Your task to perform on an android device: empty trash in google photos Image 0: 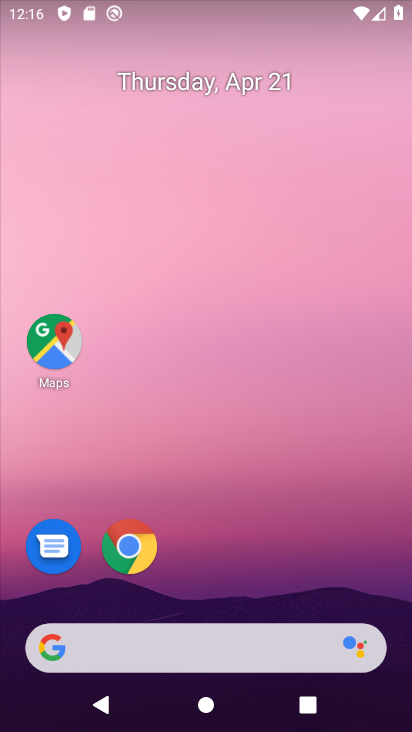
Step 0: drag from (241, 550) to (172, 82)
Your task to perform on an android device: empty trash in google photos Image 1: 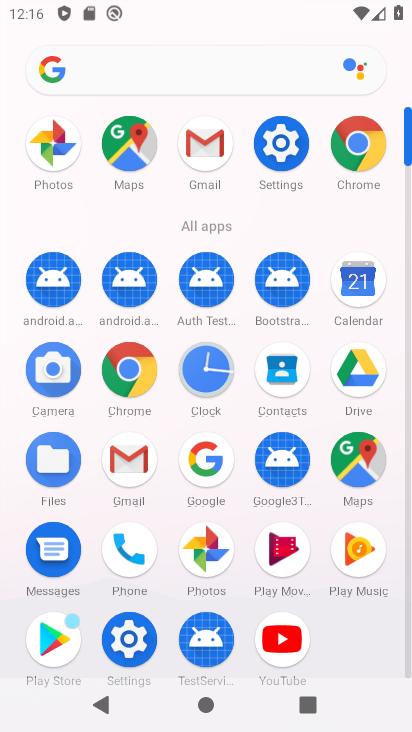
Step 1: click (212, 552)
Your task to perform on an android device: empty trash in google photos Image 2: 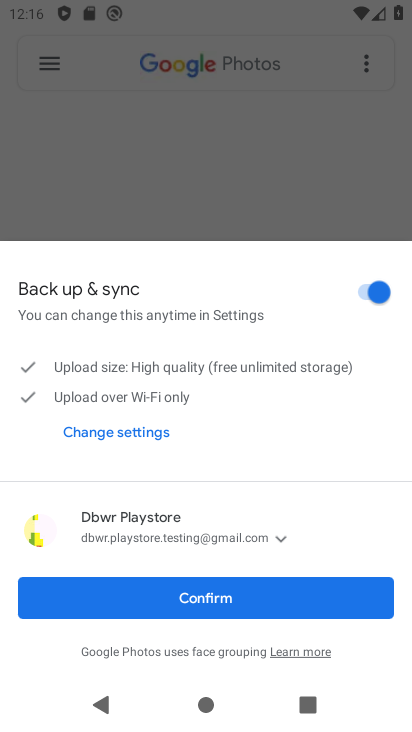
Step 2: click (181, 587)
Your task to perform on an android device: empty trash in google photos Image 3: 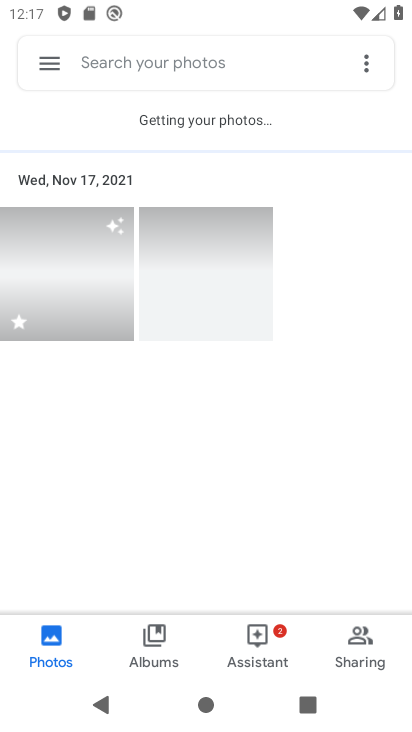
Step 3: click (54, 66)
Your task to perform on an android device: empty trash in google photos Image 4: 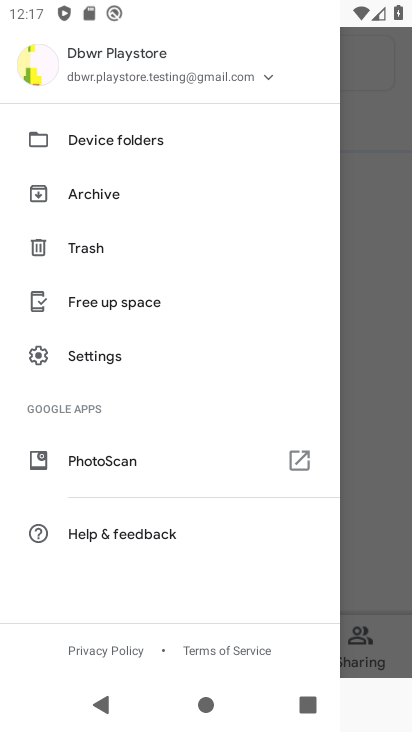
Step 4: click (112, 250)
Your task to perform on an android device: empty trash in google photos Image 5: 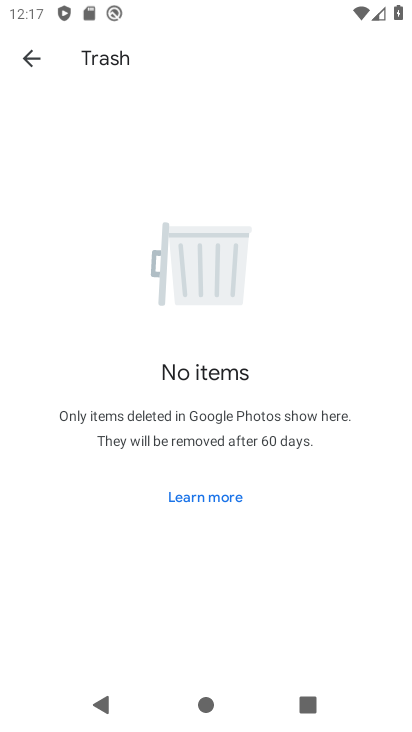
Step 5: task complete